Your task to perform on an android device: turn pop-ups on in chrome Image 0: 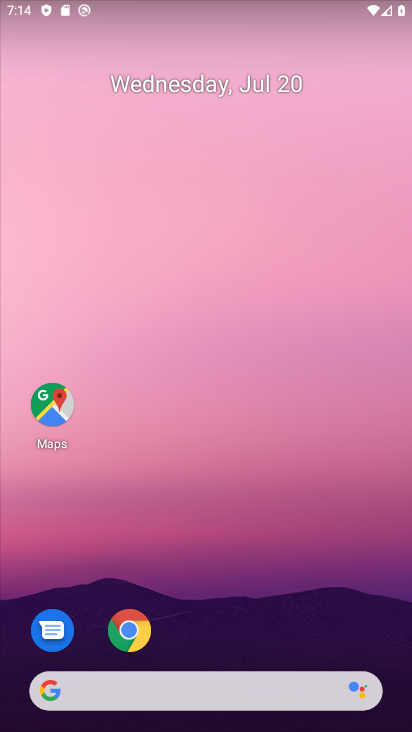
Step 0: click (133, 629)
Your task to perform on an android device: turn pop-ups on in chrome Image 1: 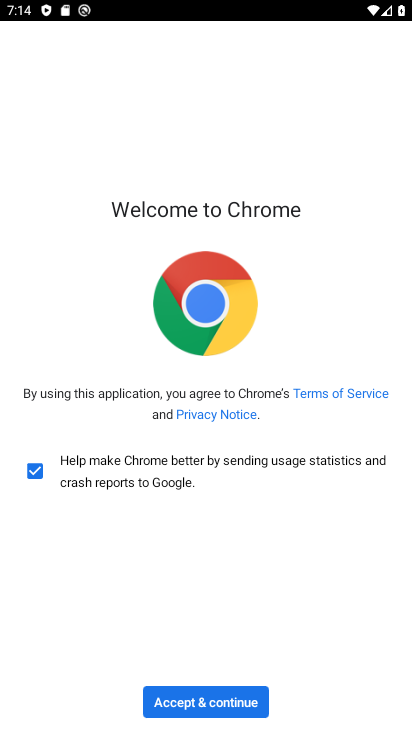
Step 1: click (192, 699)
Your task to perform on an android device: turn pop-ups on in chrome Image 2: 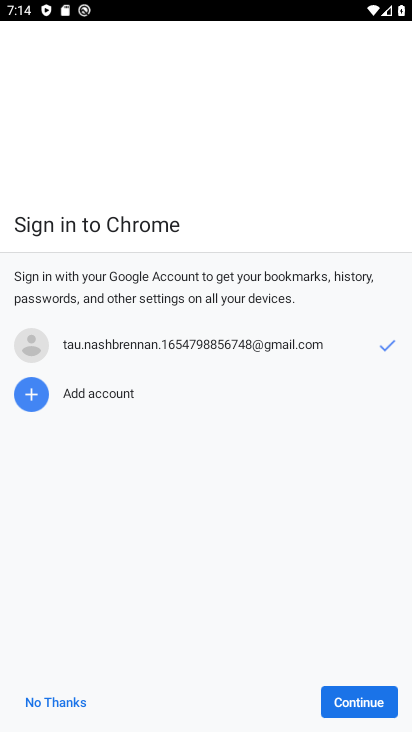
Step 2: click (352, 702)
Your task to perform on an android device: turn pop-ups on in chrome Image 3: 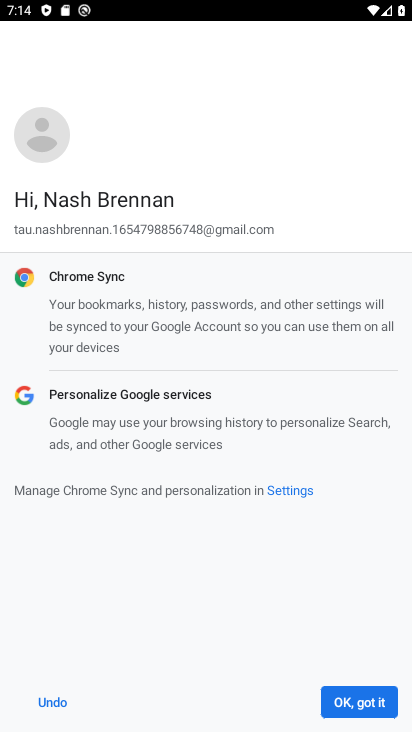
Step 3: click (352, 702)
Your task to perform on an android device: turn pop-ups on in chrome Image 4: 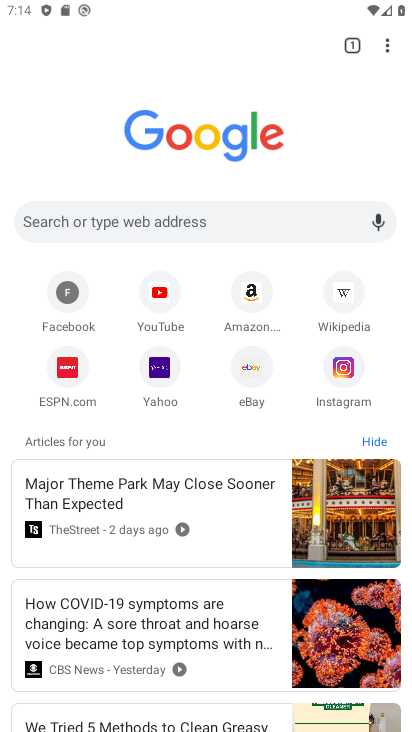
Step 4: click (389, 42)
Your task to perform on an android device: turn pop-ups on in chrome Image 5: 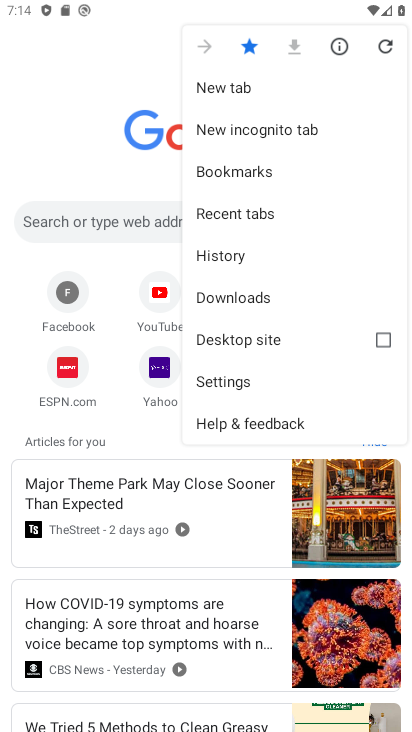
Step 5: click (232, 378)
Your task to perform on an android device: turn pop-ups on in chrome Image 6: 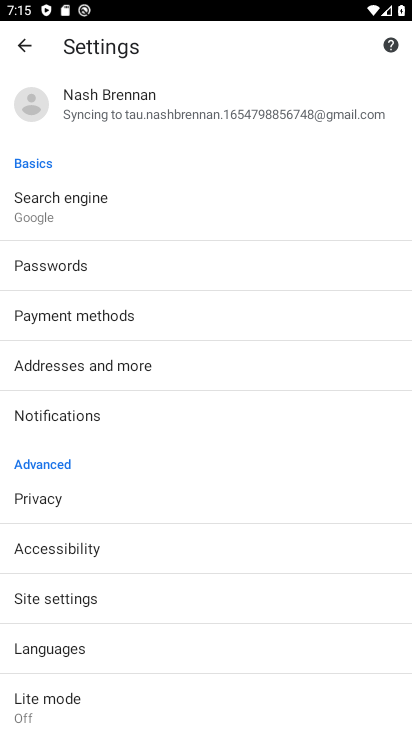
Step 6: click (67, 595)
Your task to perform on an android device: turn pop-ups on in chrome Image 7: 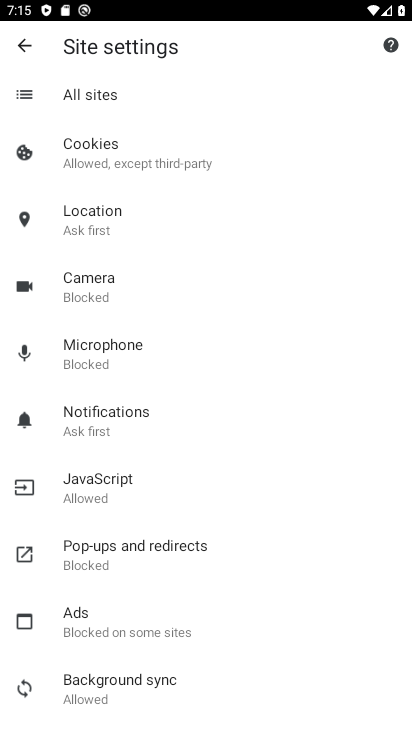
Step 7: click (97, 552)
Your task to perform on an android device: turn pop-ups on in chrome Image 8: 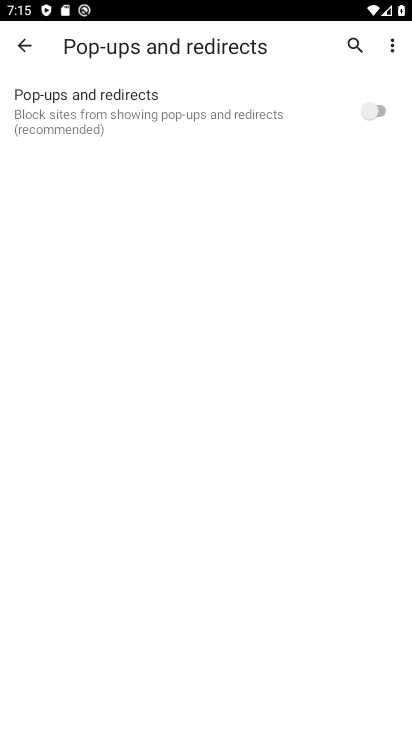
Step 8: click (366, 111)
Your task to perform on an android device: turn pop-ups on in chrome Image 9: 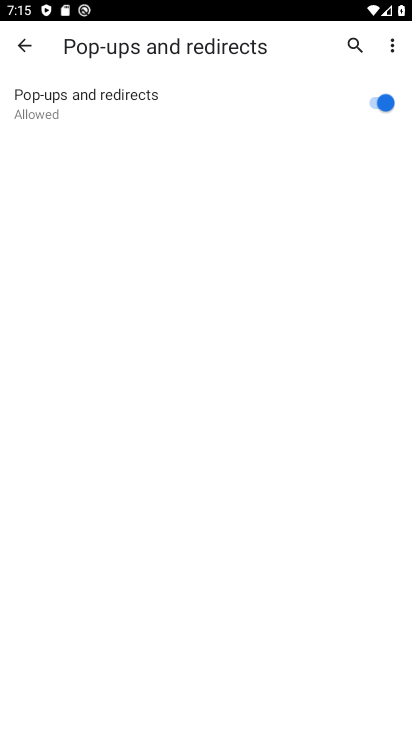
Step 9: task complete